Your task to perform on an android device: When is my next appointment? Image 0: 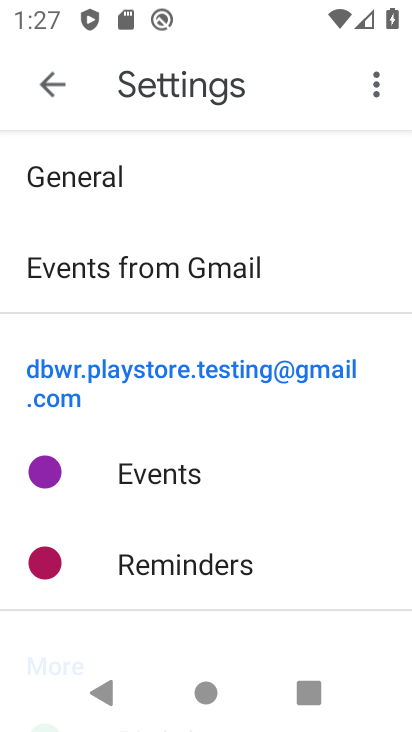
Step 0: press home button
Your task to perform on an android device: When is my next appointment? Image 1: 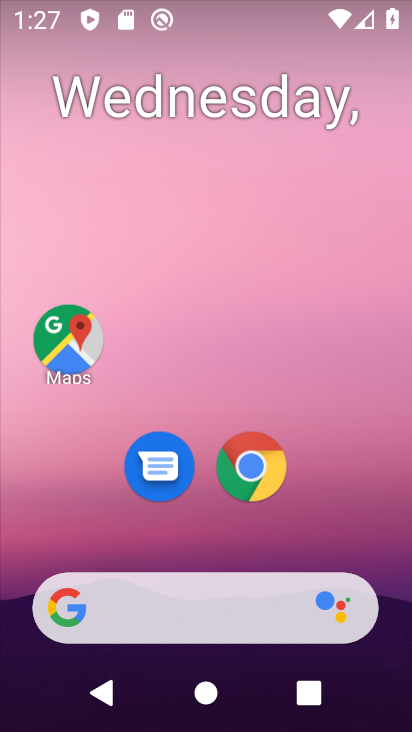
Step 1: drag from (167, 689) to (185, 133)
Your task to perform on an android device: When is my next appointment? Image 2: 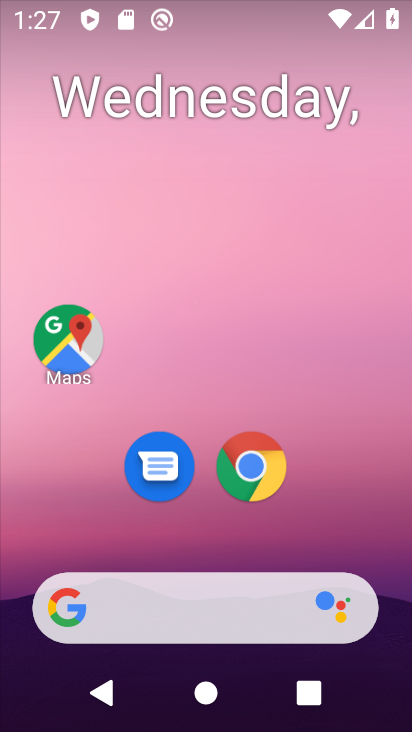
Step 2: click (242, 73)
Your task to perform on an android device: When is my next appointment? Image 3: 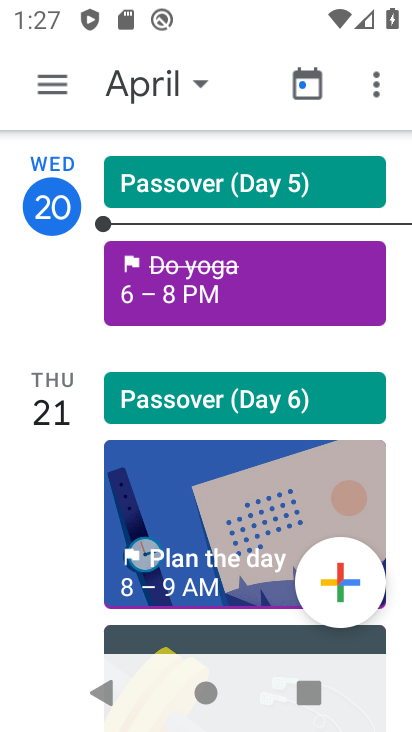
Step 3: click (242, 73)
Your task to perform on an android device: When is my next appointment? Image 4: 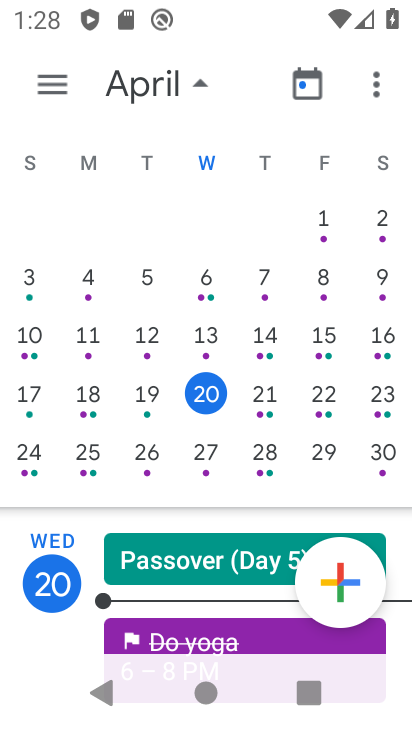
Step 4: click (55, 73)
Your task to perform on an android device: When is my next appointment? Image 5: 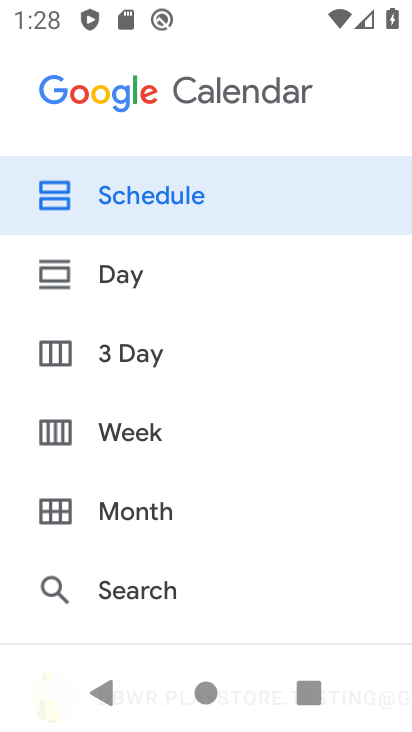
Step 5: drag from (255, 543) to (216, 95)
Your task to perform on an android device: When is my next appointment? Image 6: 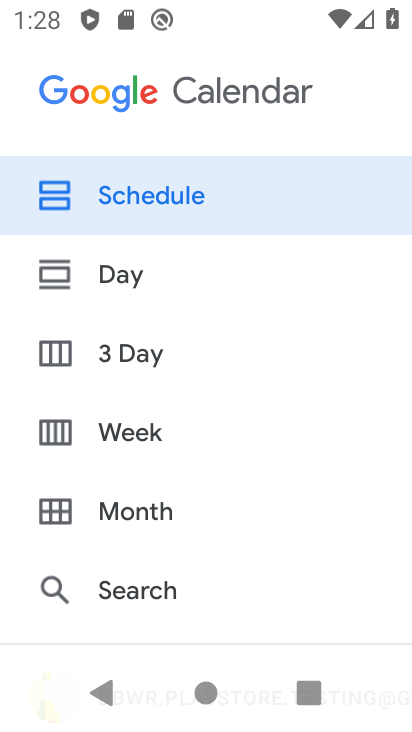
Step 6: drag from (78, 631) to (198, 69)
Your task to perform on an android device: When is my next appointment? Image 7: 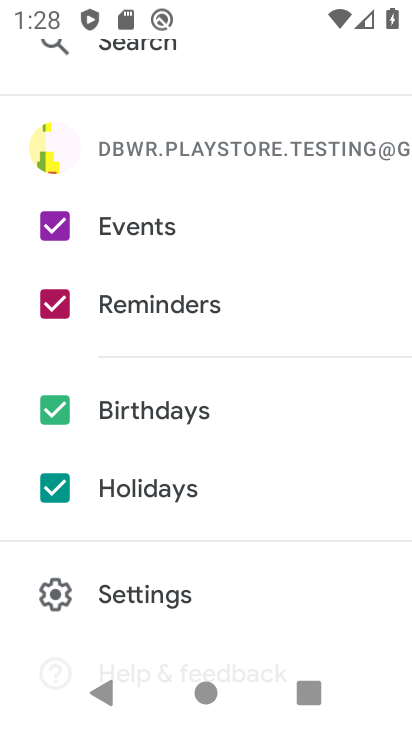
Step 7: click (151, 596)
Your task to perform on an android device: When is my next appointment? Image 8: 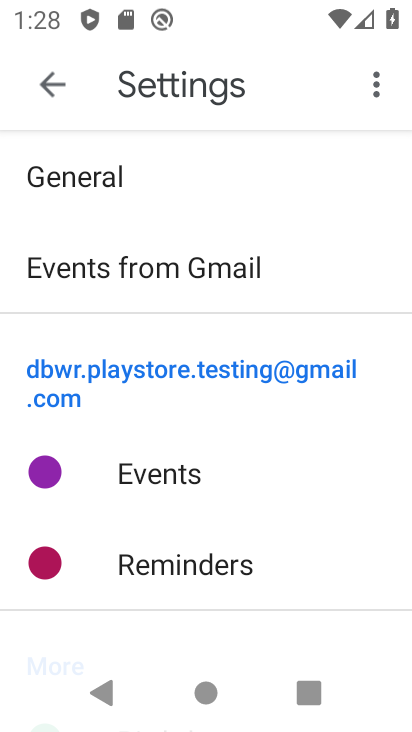
Step 8: task complete